Your task to perform on an android device: Turn off the flashlight Image 0: 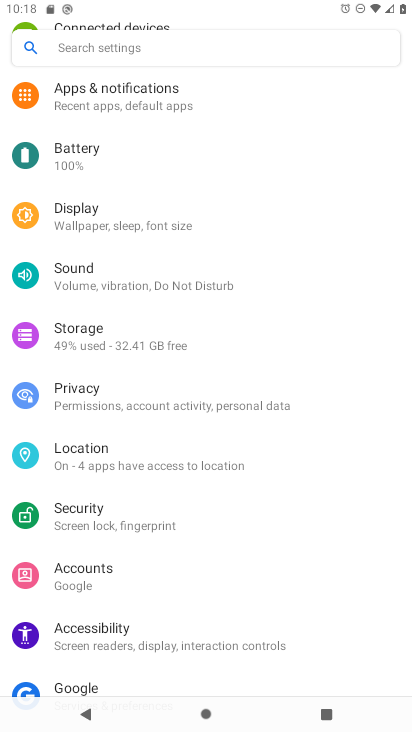
Step 0: press home button
Your task to perform on an android device: Turn off the flashlight Image 1: 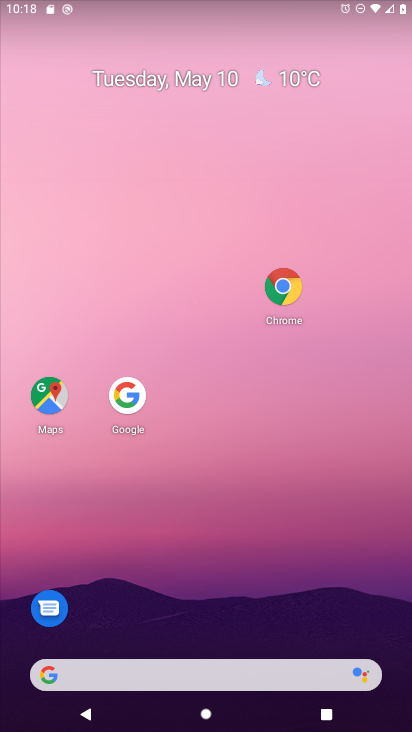
Step 1: task complete